Your task to perform on an android device: turn on improve location accuracy Image 0: 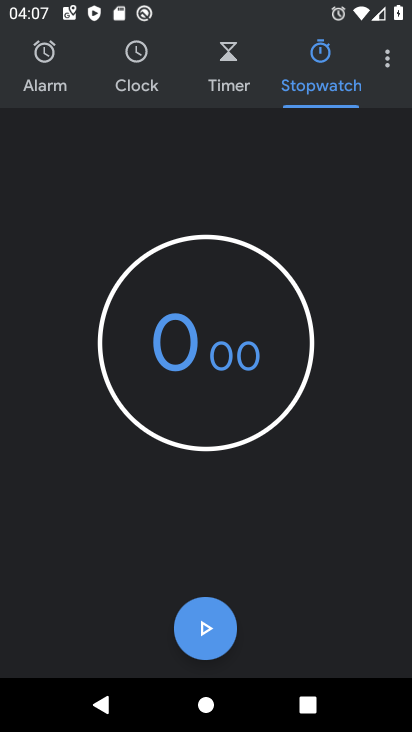
Step 0: press home button
Your task to perform on an android device: turn on improve location accuracy Image 1: 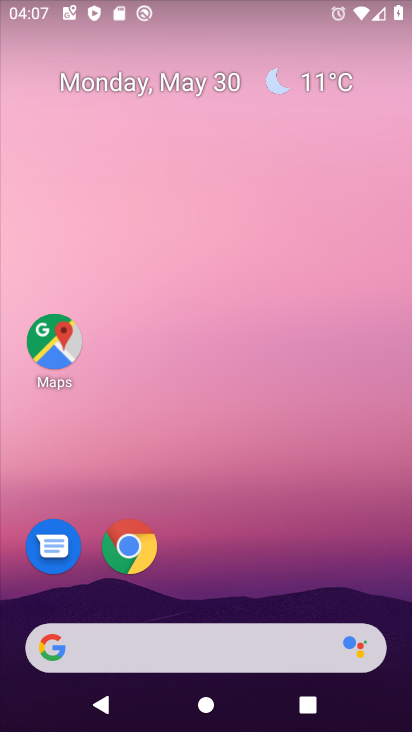
Step 1: drag from (211, 603) to (195, 62)
Your task to perform on an android device: turn on improve location accuracy Image 2: 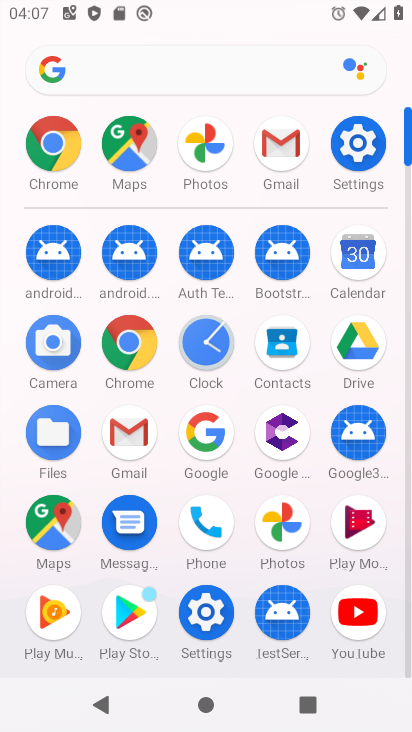
Step 2: click (353, 138)
Your task to perform on an android device: turn on improve location accuracy Image 3: 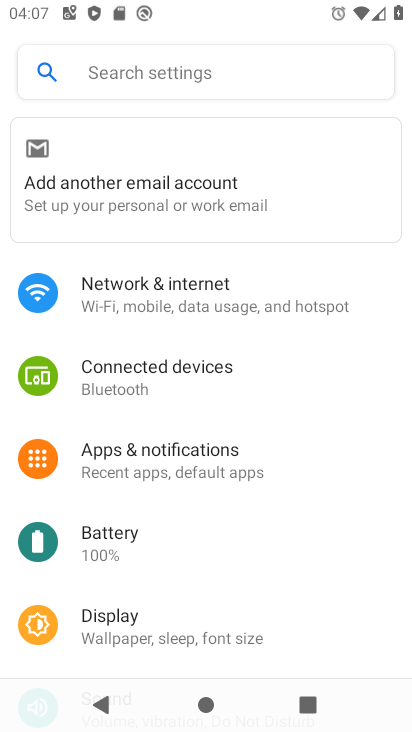
Step 3: drag from (200, 654) to (222, 139)
Your task to perform on an android device: turn on improve location accuracy Image 4: 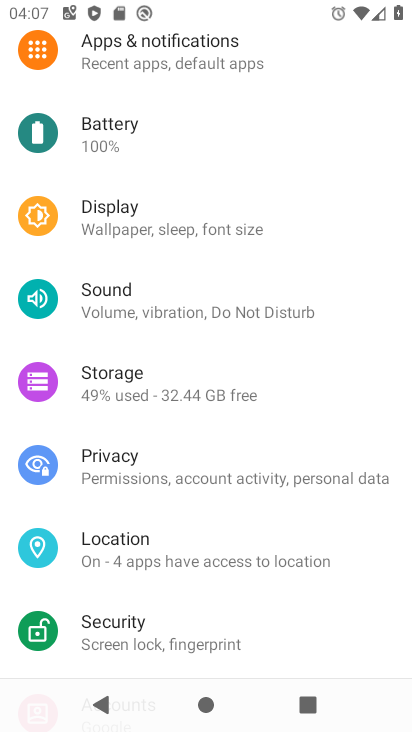
Step 4: click (141, 544)
Your task to perform on an android device: turn on improve location accuracy Image 5: 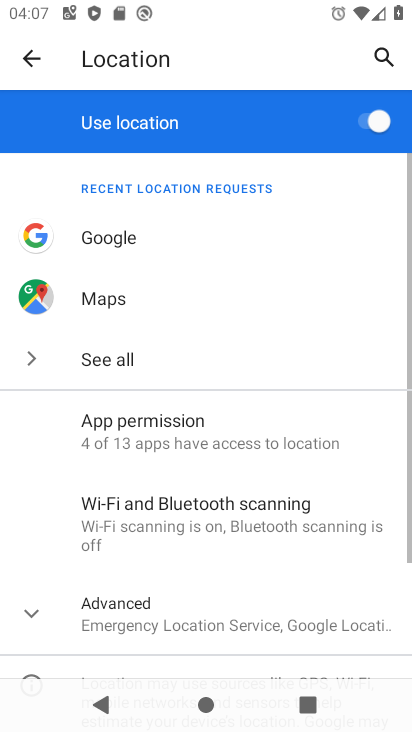
Step 5: click (134, 606)
Your task to perform on an android device: turn on improve location accuracy Image 6: 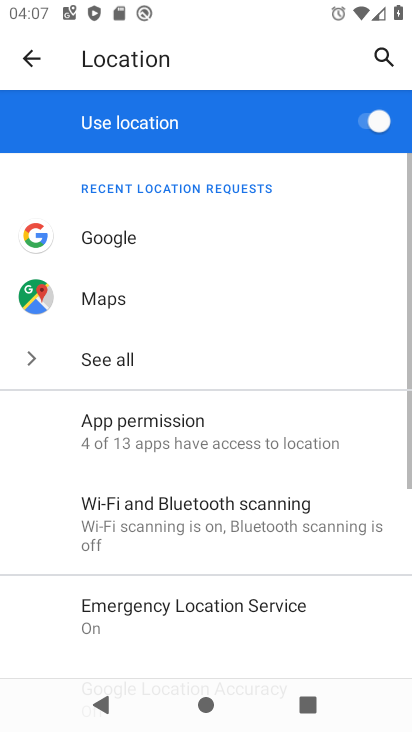
Step 6: drag from (191, 623) to (202, 171)
Your task to perform on an android device: turn on improve location accuracy Image 7: 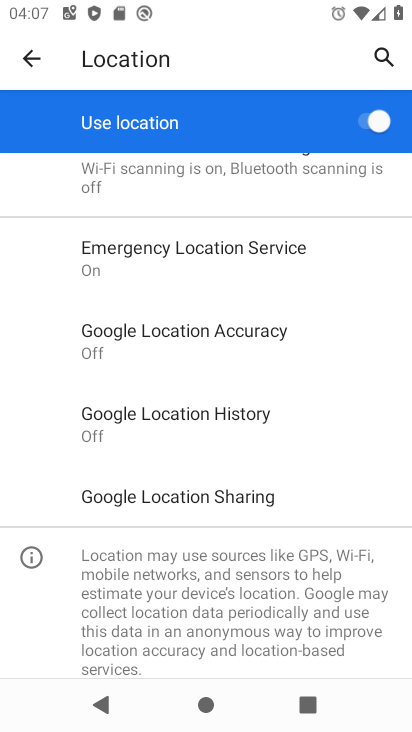
Step 7: click (149, 338)
Your task to perform on an android device: turn on improve location accuracy Image 8: 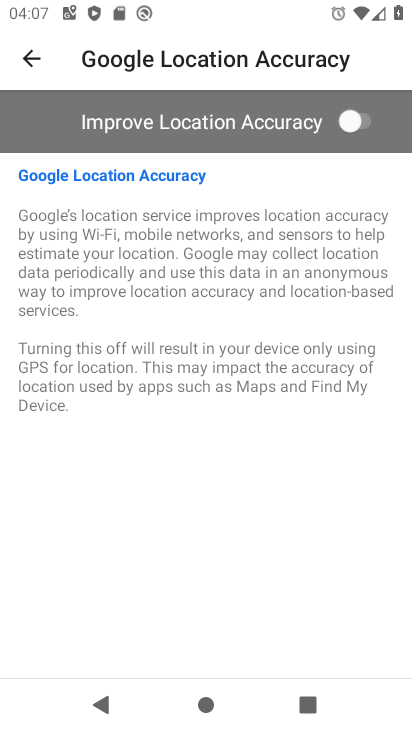
Step 8: click (363, 123)
Your task to perform on an android device: turn on improve location accuracy Image 9: 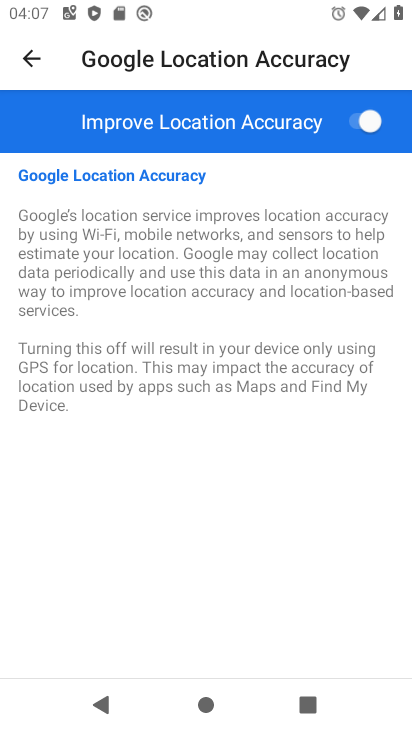
Step 9: task complete